Your task to perform on an android device: delete a single message in the gmail app Image 0: 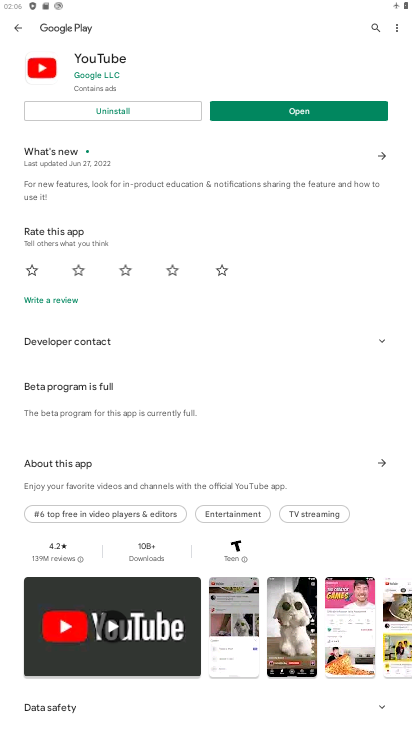
Step 0: press home button
Your task to perform on an android device: delete a single message in the gmail app Image 1: 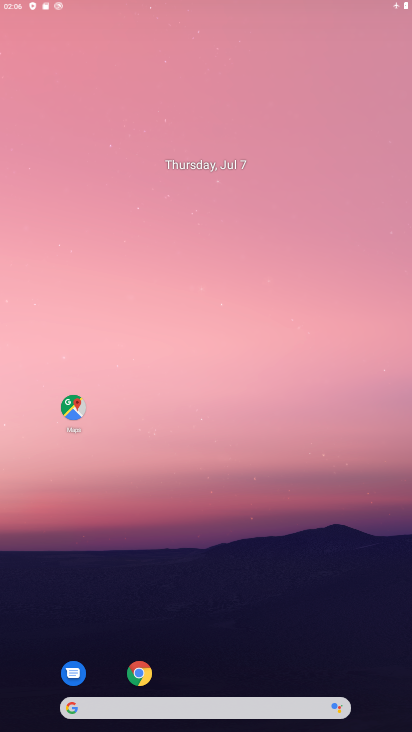
Step 1: drag from (211, 163) to (209, 108)
Your task to perform on an android device: delete a single message in the gmail app Image 2: 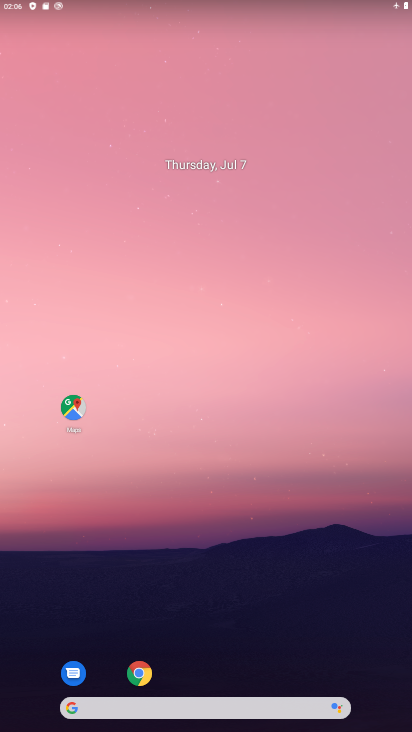
Step 2: drag from (219, 573) to (214, 73)
Your task to perform on an android device: delete a single message in the gmail app Image 3: 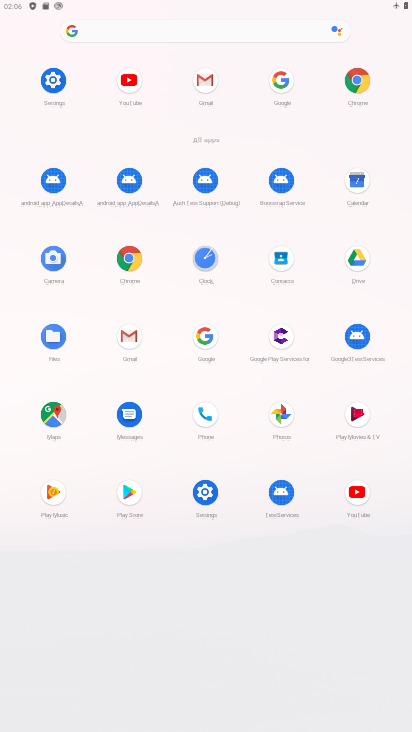
Step 3: click (200, 88)
Your task to perform on an android device: delete a single message in the gmail app Image 4: 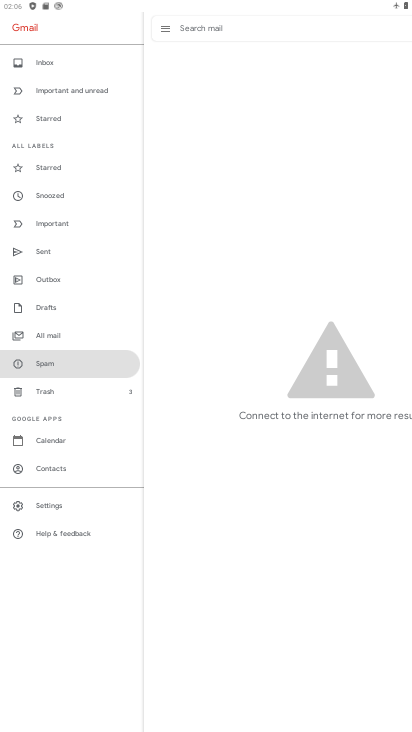
Step 4: click (62, 333)
Your task to perform on an android device: delete a single message in the gmail app Image 5: 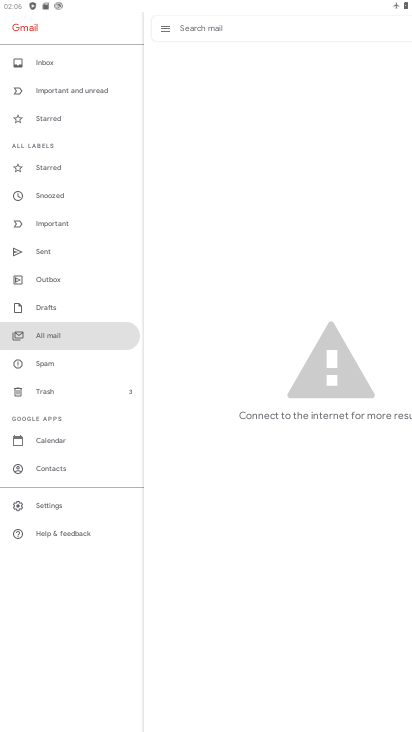
Step 5: task complete